Your task to perform on an android device: toggle location history Image 0: 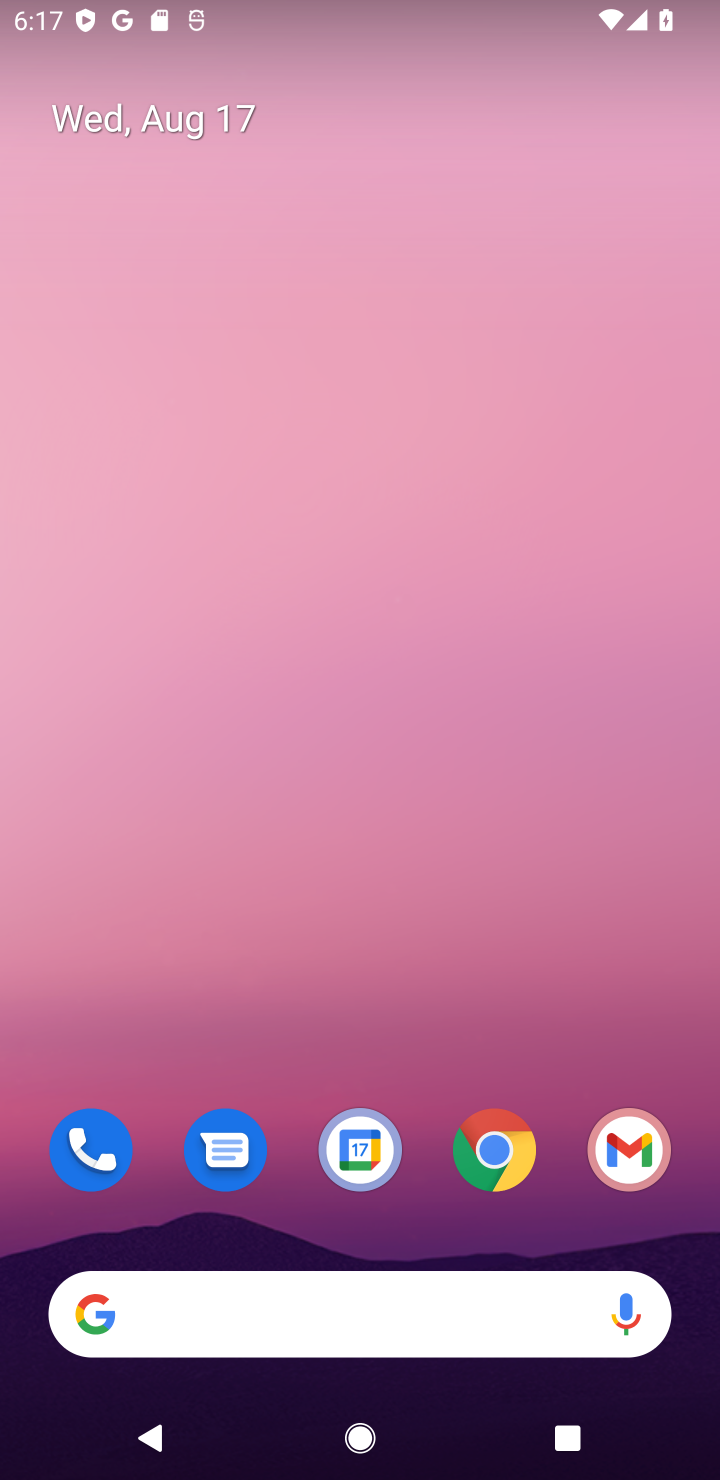
Step 0: drag from (338, 675) to (355, 373)
Your task to perform on an android device: toggle location history Image 1: 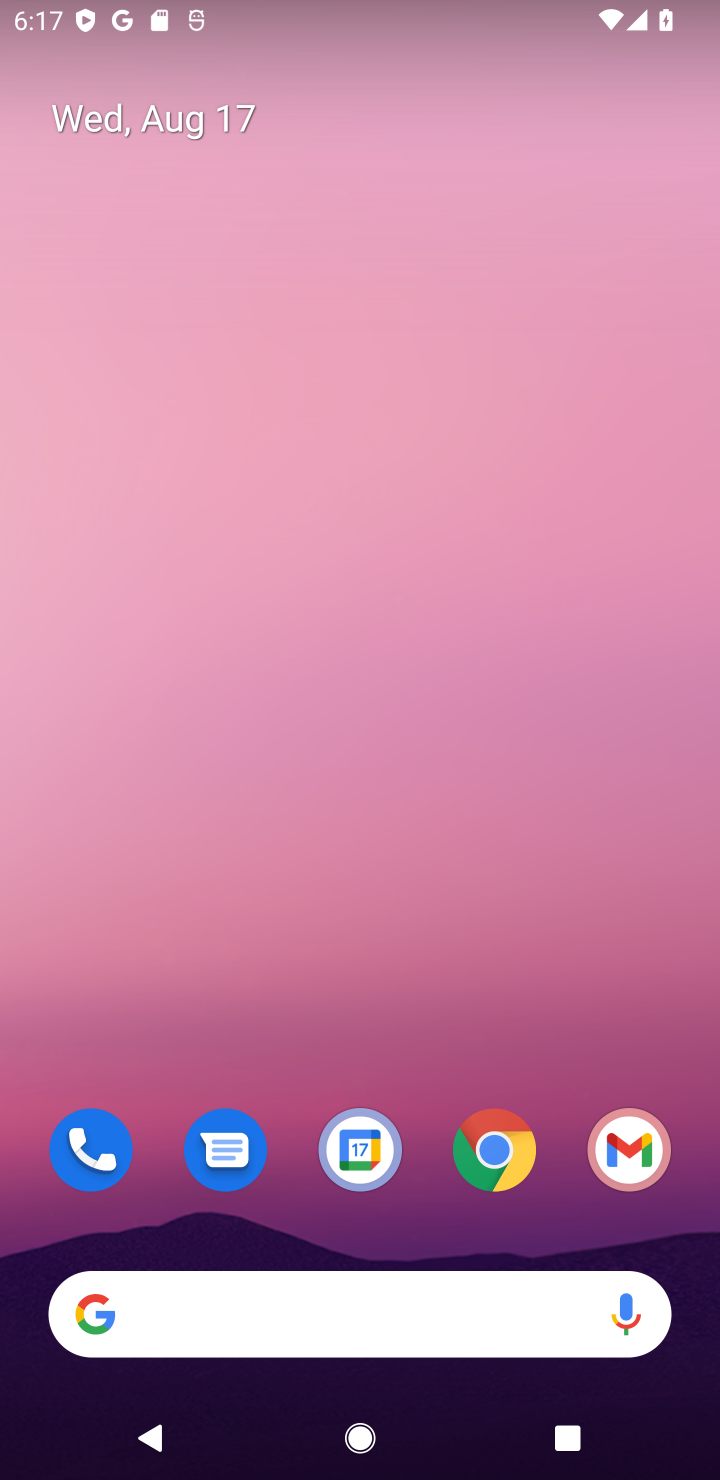
Step 1: drag from (333, 1127) to (328, 261)
Your task to perform on an android device: toggle location history Image 2: 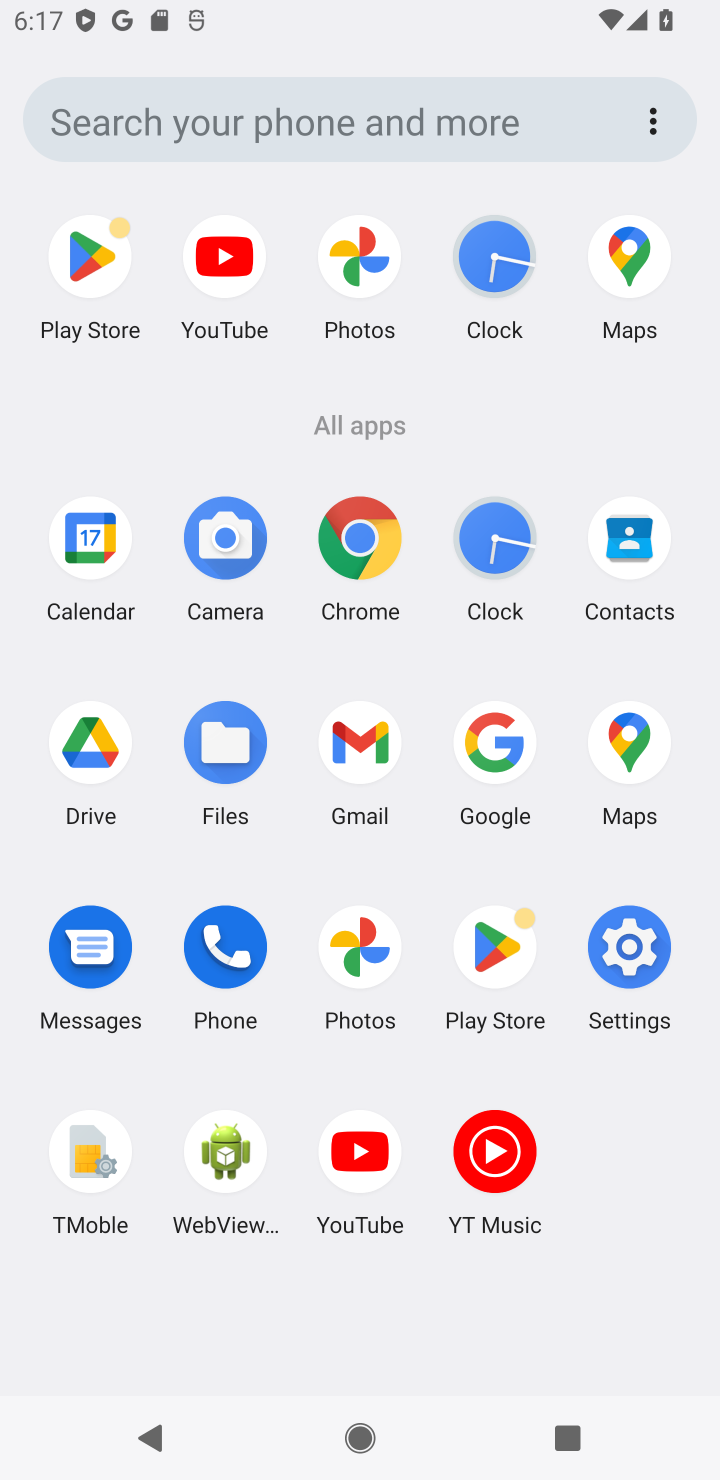
Step 2: click (627, 964)
Your task to perform on an android device: toggle location history Image 3: 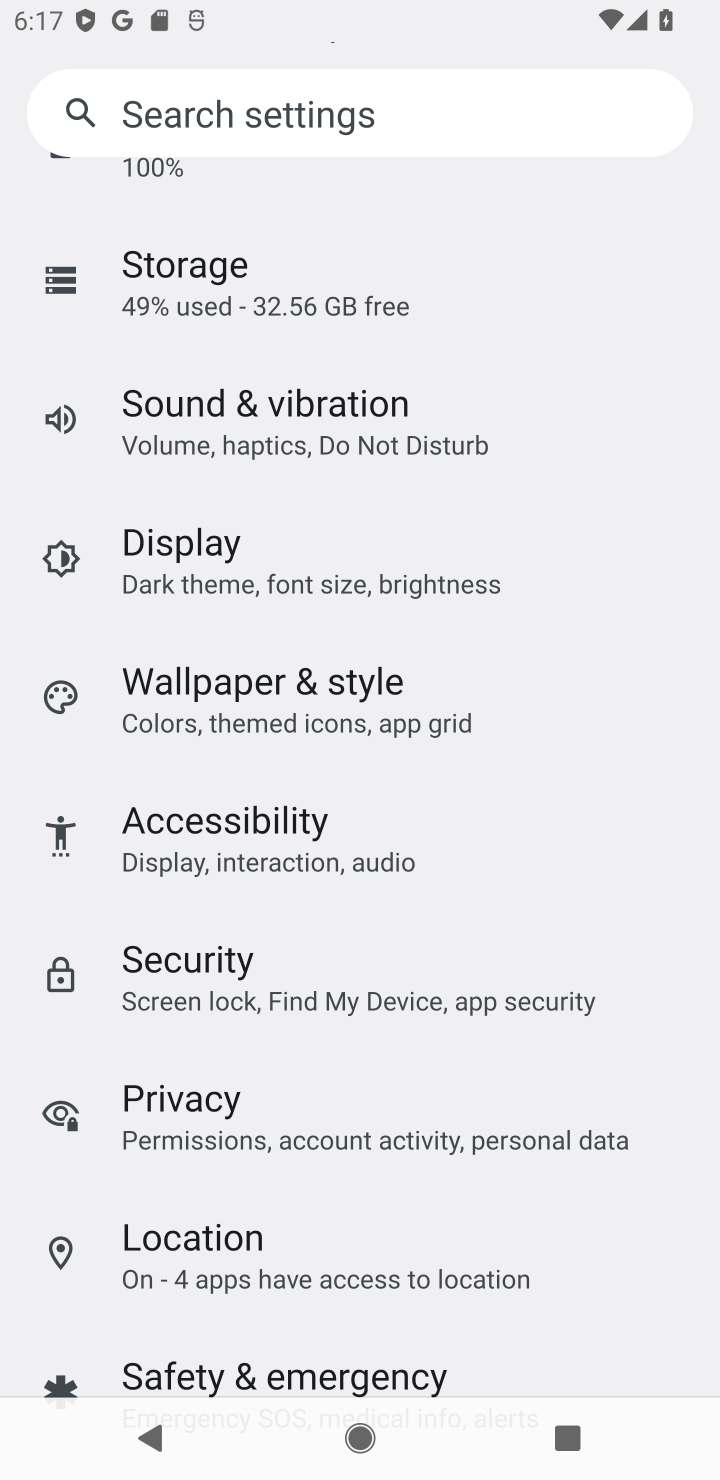
Step 3: click (174, 1257)
Your task to perform on an android device: toggle location history Image 4: 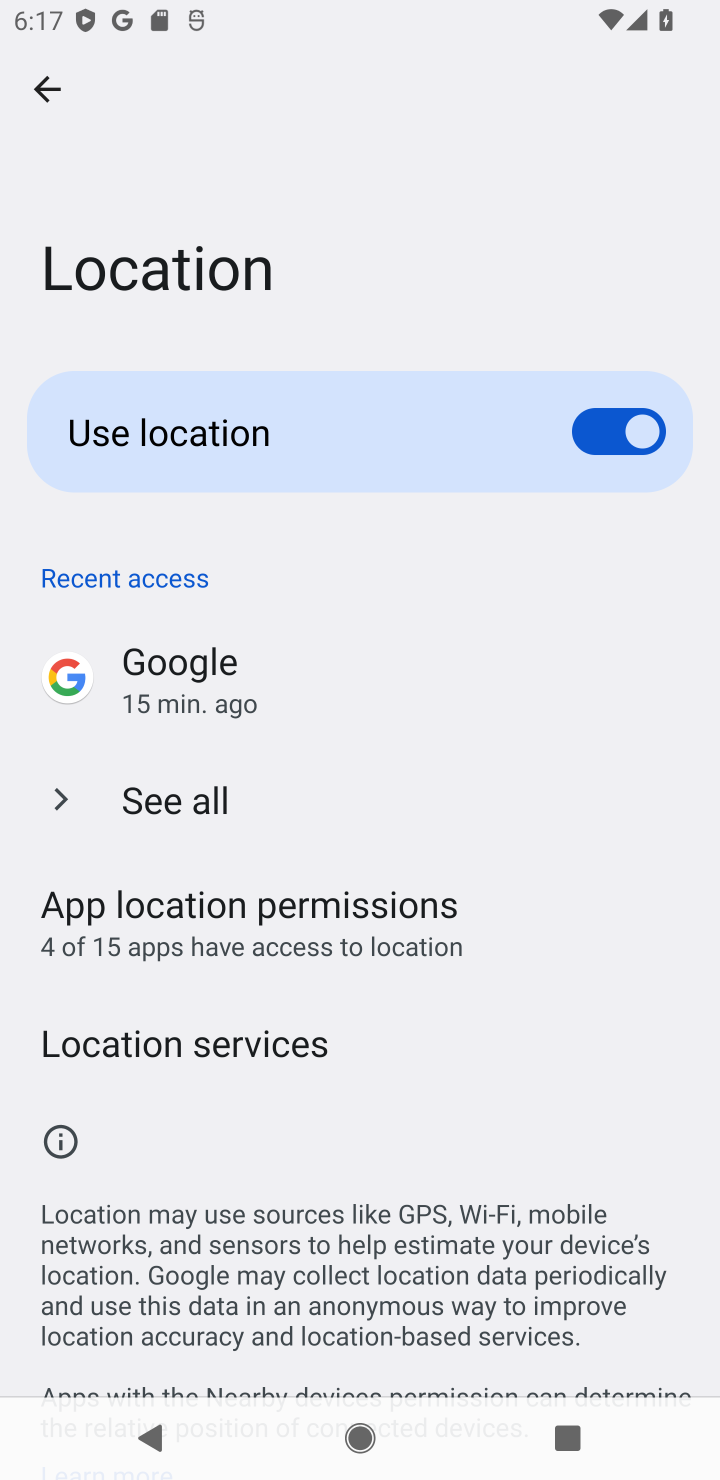
Step 4: click (213, 1044)
Your task to perform on an android device: toggle location history Image 5: 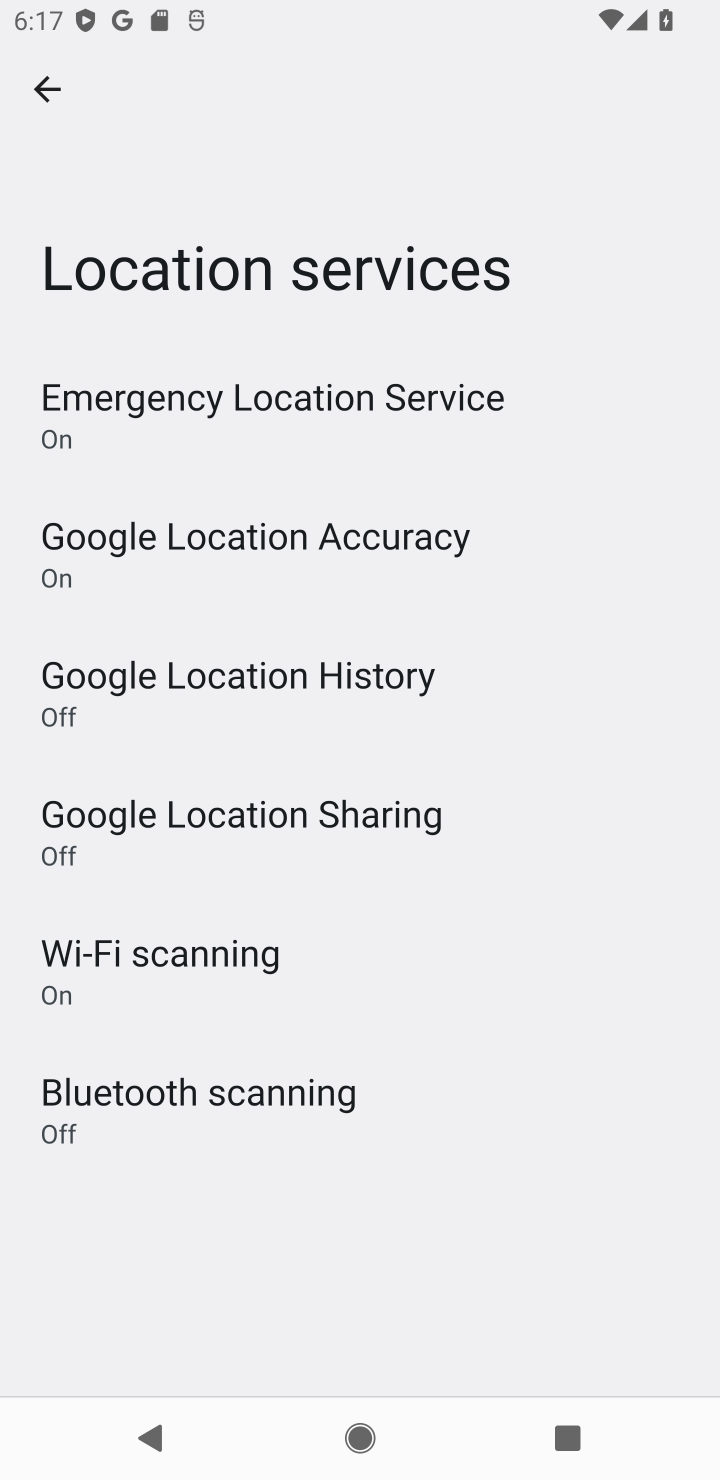
Step 5: click (240, 672)
Your task to perform on an android device: toggle location history Image 6: 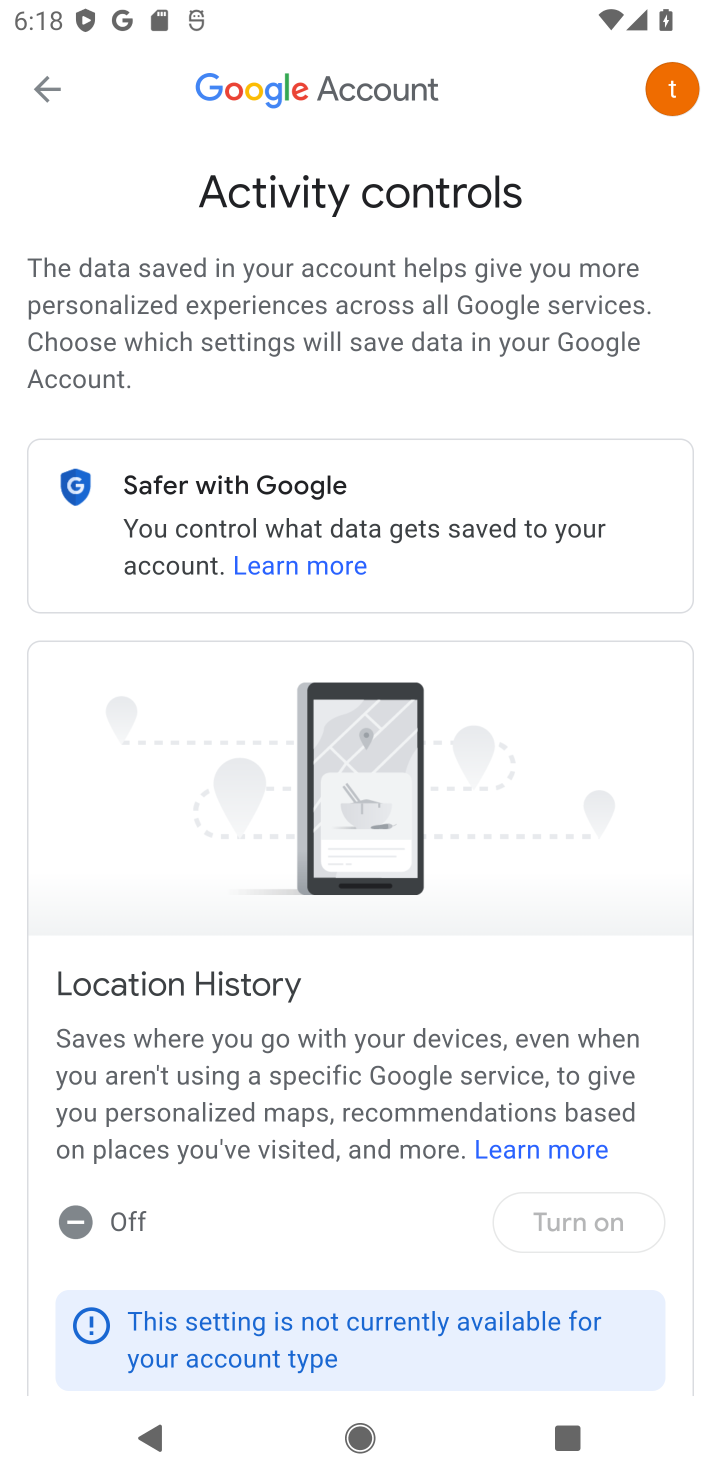
Step 6: task complete